Your task to perform on an android device: change notification settings in the gmail app Image 0: 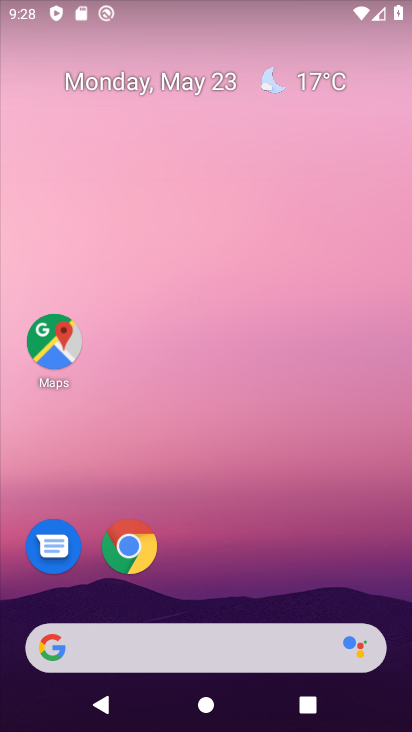
Step 0: drag from (305, 546) to (211, 15)
Your task to perform on an android device: change notification settings in the gmail app Image 1: 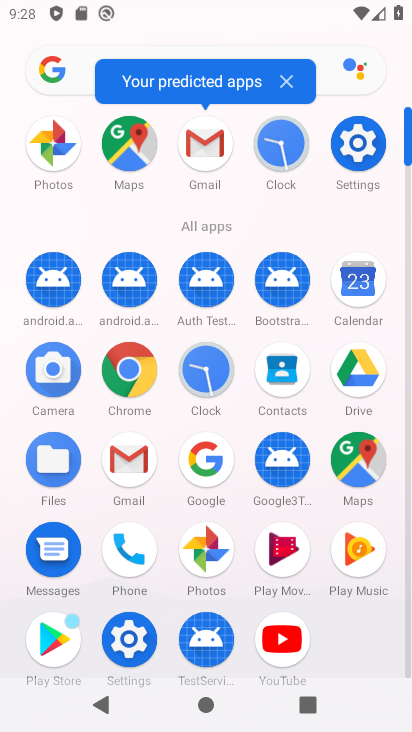
Step 1: click (201, 147)
Your task to perform on an android device: change notification settings in the gmail app Image 2: 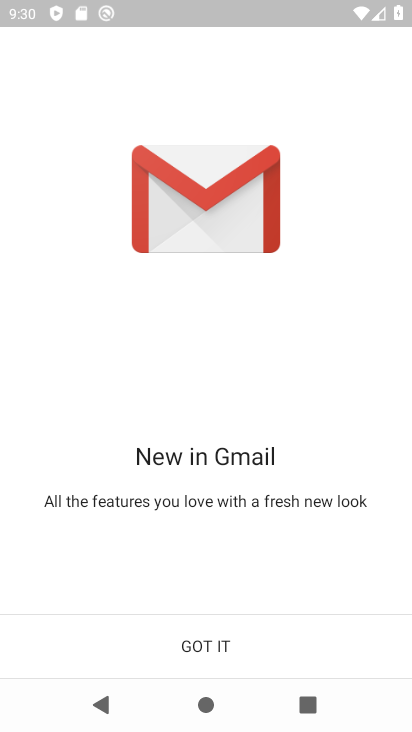
Step 2: press home button
Your task to perform on an android device: change notification settings in the gmail app Image 3: 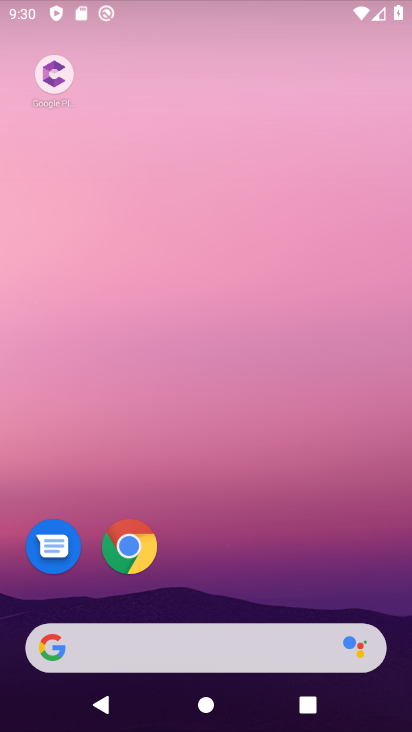
Step 3: drag from (279, 588) to (242, 99)
Your task to perform on an android device: change notification settings in the gmail app Image 4: 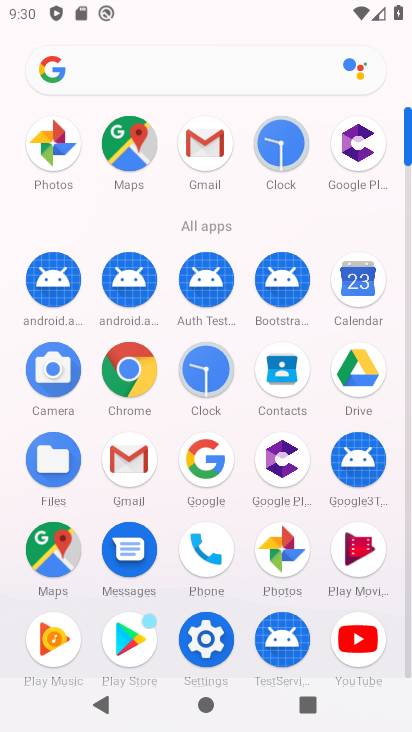
Step 4: click (202, 149)
Your task to perform on an android device: change notification settings in the gmail app Image 5: 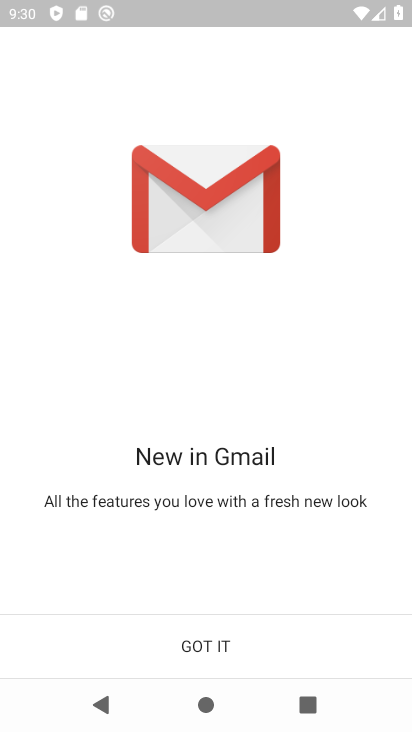
Step 5: click (225, 644)
Your task to perform on an android device: change notification settings in the gmail app Image 6: 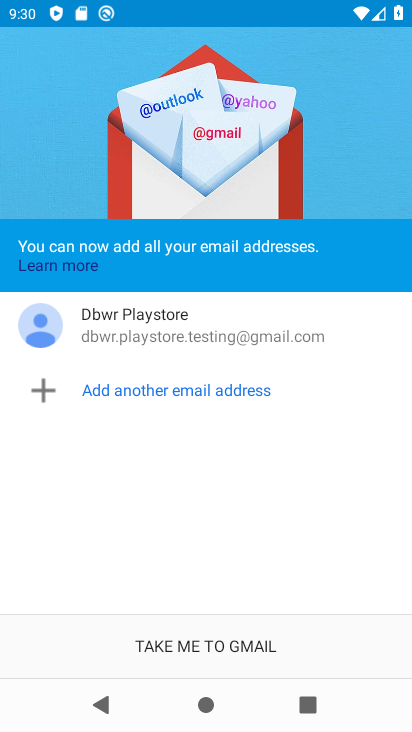
Step 6: click (227, 656)
Your task to perform on an android device: change notification settings in the gmail app Image 7: 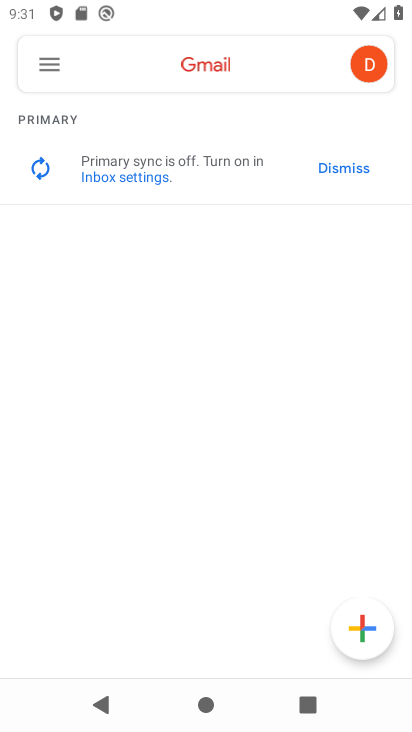
Step 7: click (54, 59)
Your task to perform on an android device: change notification settings in the gmail app Image 8: 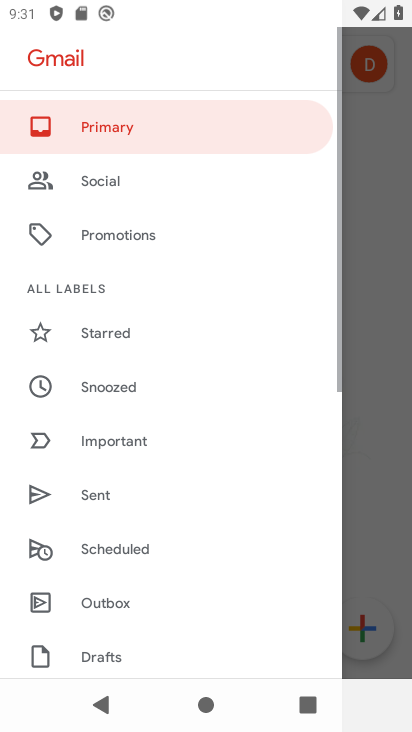
Step 8: drag from (145, 586) to (191, 41)
Your task to perform on an android device: change notification settings in the gmail app Image 9: 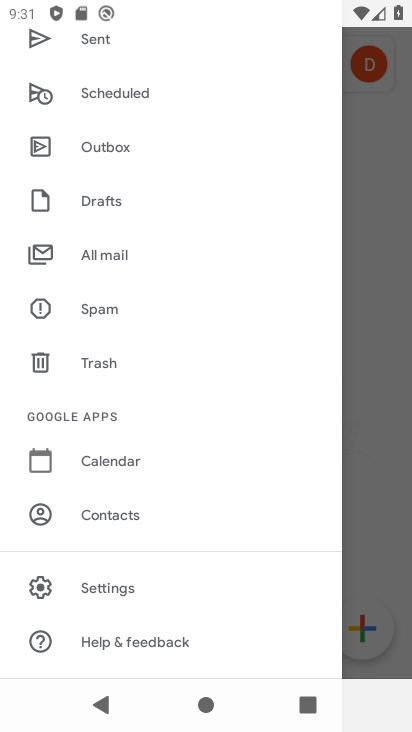
Step 9: click (108, 585)
Your task to perform on an android device: change notification settings in the gmail app Image 10: 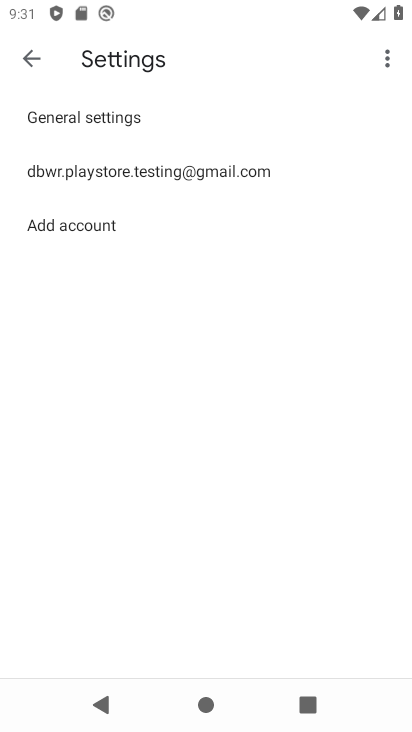
Step 10: click (162, 182)
Your task to perform on an android device: change notification settings in the gmail app Image 11: 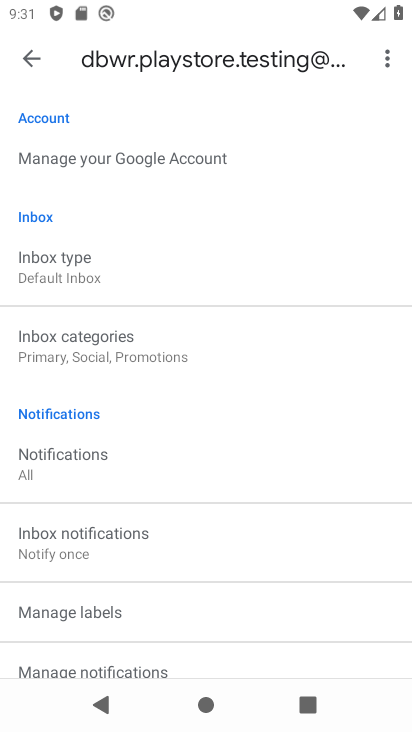
Step 11: click (126, 670)
Your task to perform on an android device: change notification settings in the gmail app Image 12: 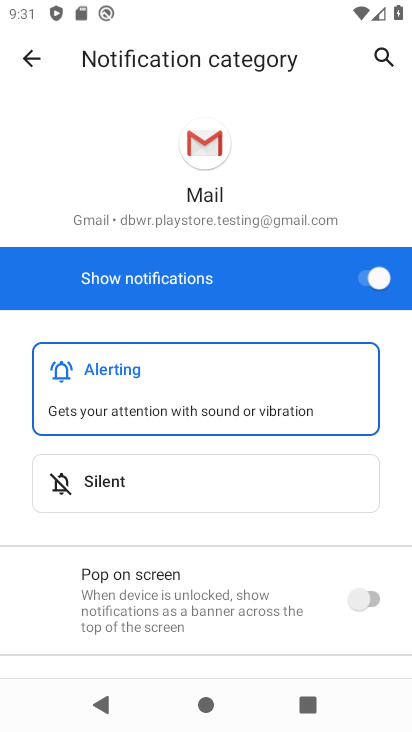
Step 12: click (372, 270)
Your task to perform on an android device: change notification settings in the gmail app Image 13: 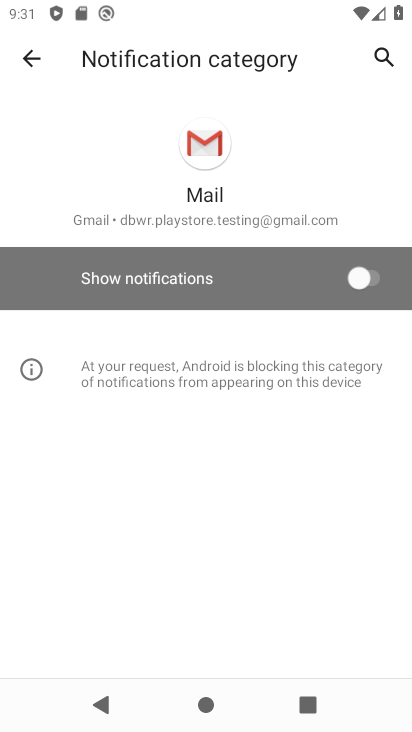
Step 13: task complete